Your task to perform on an android device: turn off notifications in google photos Image 0: 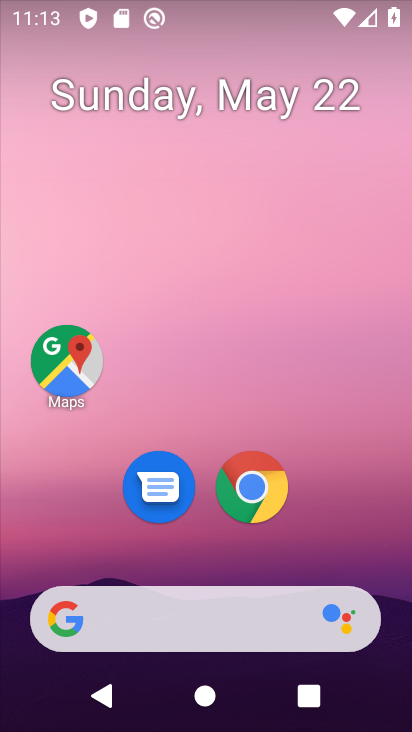
Step 0: drag from (383, 533) to (298, 186)
Your task to perform on an android device: turn off notifications in google photos Image 1: 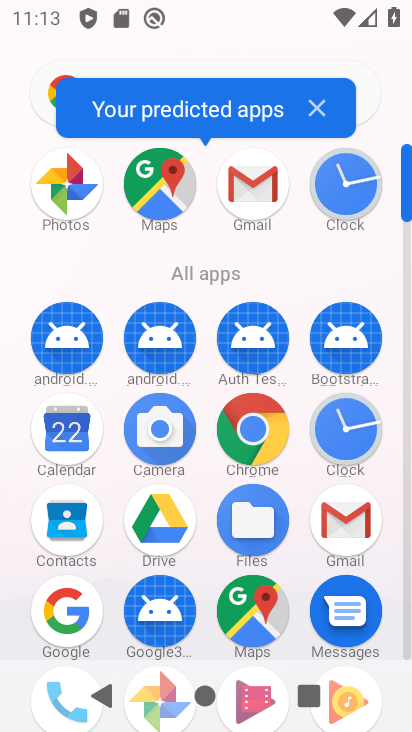
Step 1: drag from (287, 573) to (276, 316)
Your task to perform on an android device: turn off notifications in google photos Image 2: 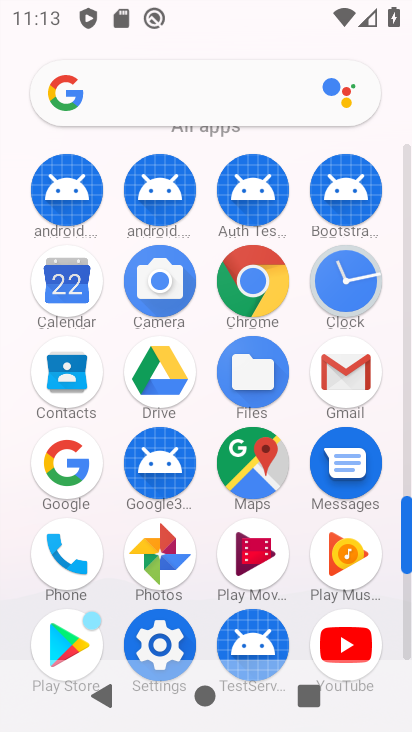
Step 2: click (155, 573)
Your task to perform on an android device: turn off notifications in google photos Image 3: 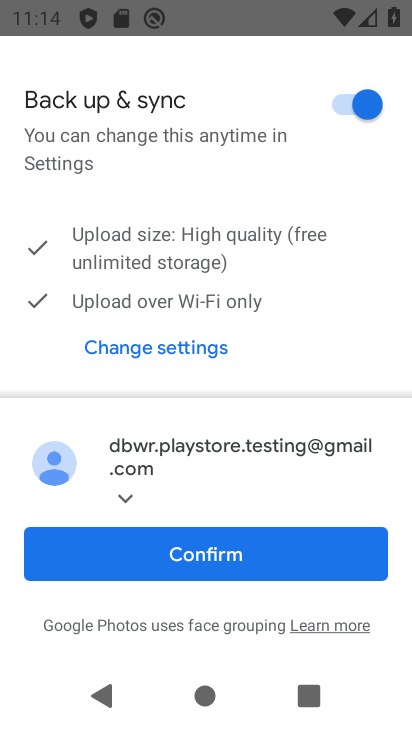
Step 3: click (172, 565)
Your task to perform on an android device: turn off notifications in google photos Image 4: 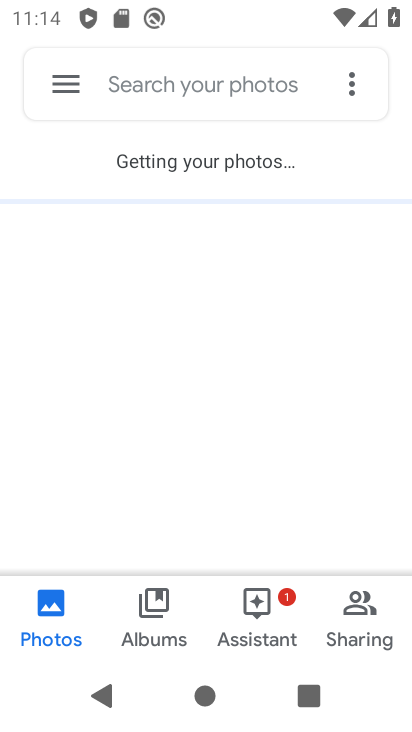
Step 4: click (61, 94)
Your task to perform on an android device: turn off notifications in google photos Image 5: 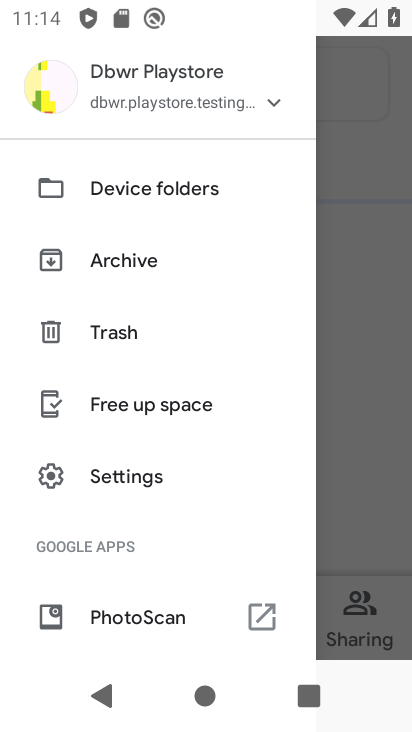
Step 5: click (108, 482)
Your task to perform on an android device: turn off notifications in google photos Image 6: 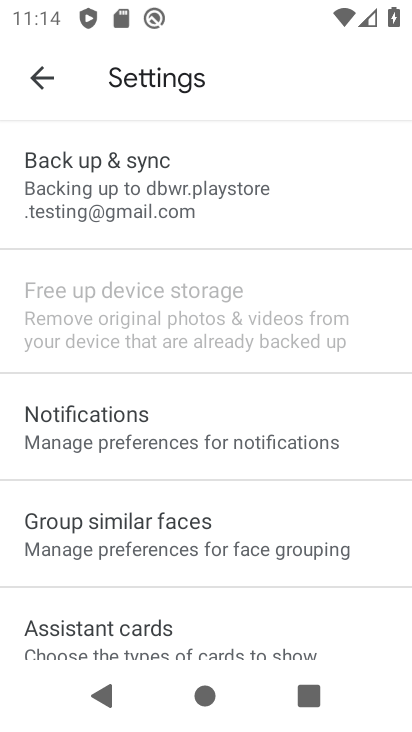
Step 6: click (104, 416)
Your task to perform on an android device: turn off notifications in google photos Image 7: 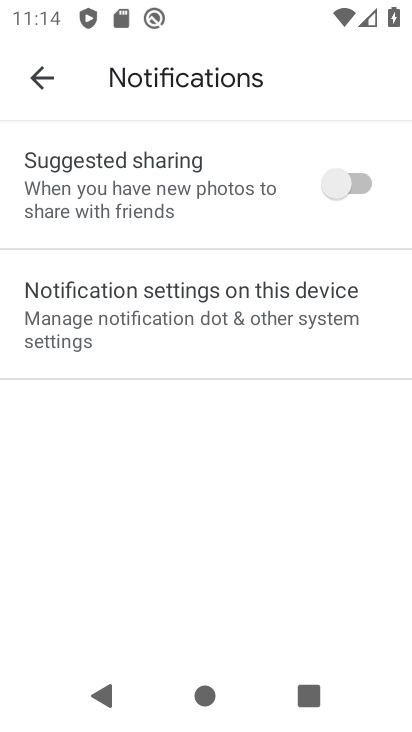
Step 7: click (118, 346)
Your task to perform on an android device: turn off notifications in google photos Image 8: 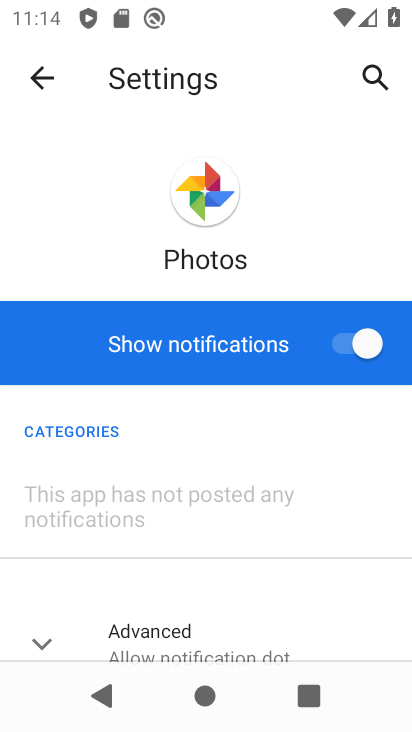
Step 8: click (349, 341)
Your task to perform on an android device: turn off notifications in google photos Image 9: 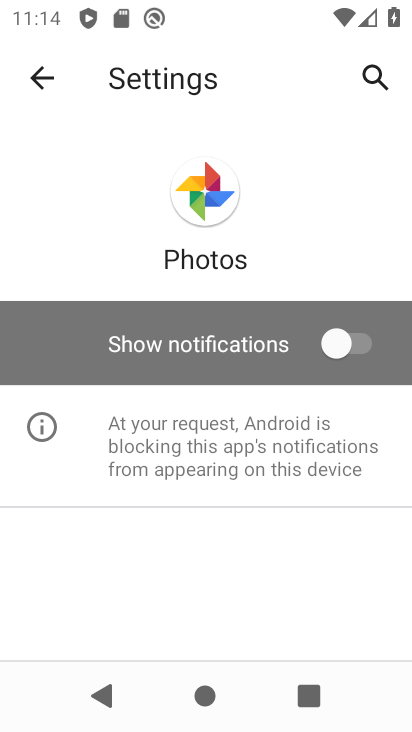
Step 9: task complete